Your task to perform on an android device: Go to ESPN.com Image 0: 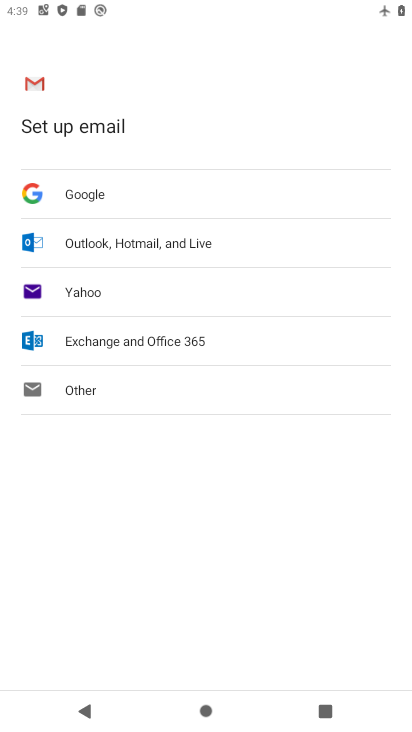
Step 0: press back button
Your task to perform on an android device: Go to ESPN.com Image 1: 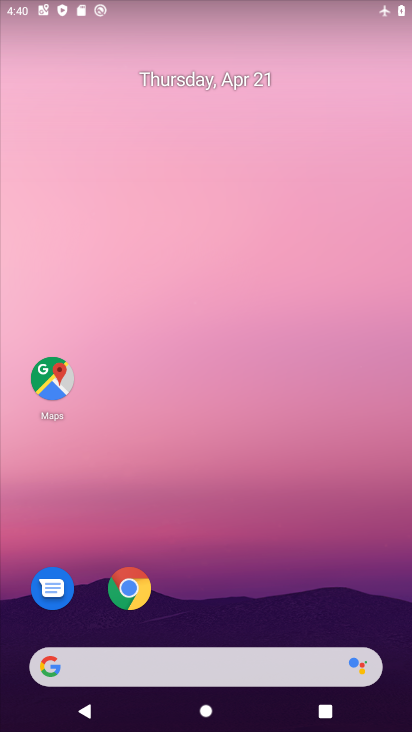
Step 1: click (130, 577)
Your task to perform on an android device: Go to ESPN.com Image 2: 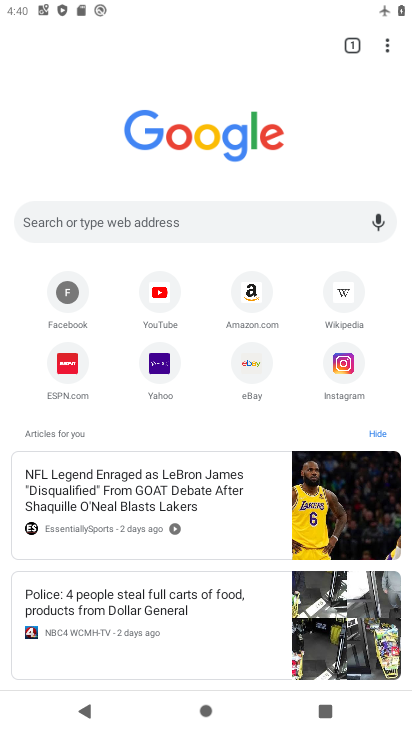
Step 2: click (69, 357)
Your task to perform on an android device: Go to ESPN.com Image 3: 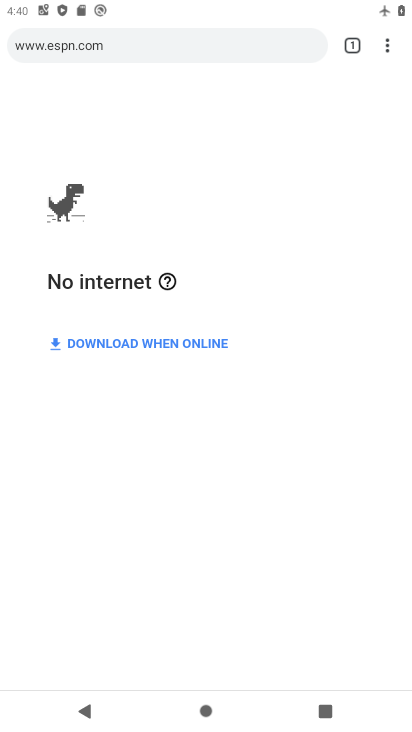
Step 3: task complete